Your task to perform on an android device: change the upload size in google photos Image 0: 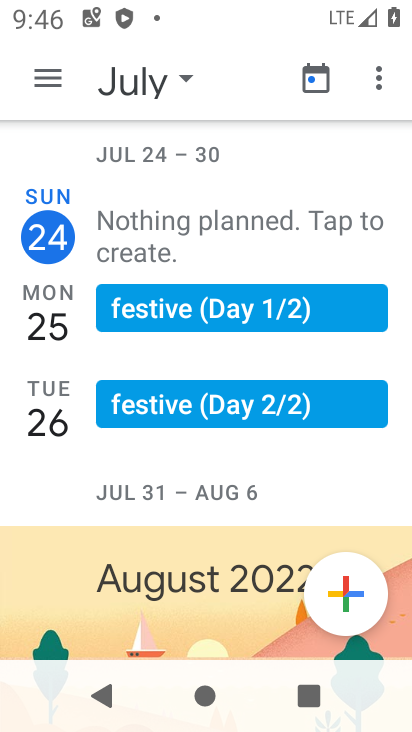
Step 0: press home button
Your task to perform on an android device: change the upload size in google photos Image 1: 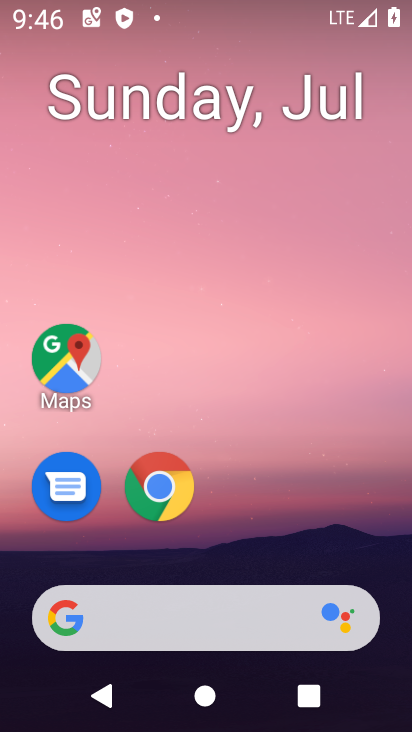
Step 1: drag from (314, 525) to (311, 61)
Your task to perform on an android device: change the upload size in google photos Image 2: 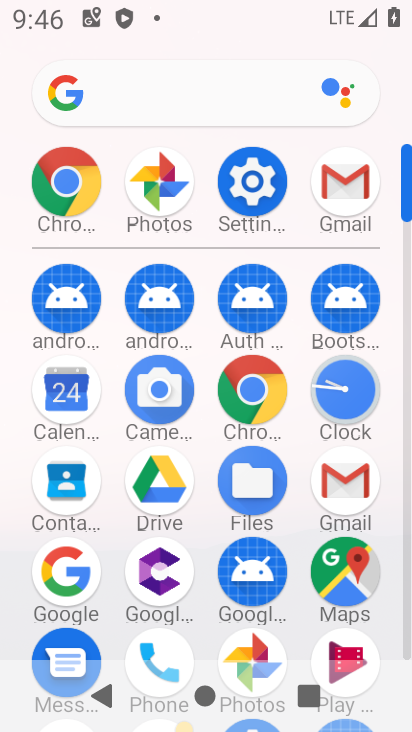
Step 2: click (154, 190)
Your task to perform on an android device: change the upload size in google photos Image 3: 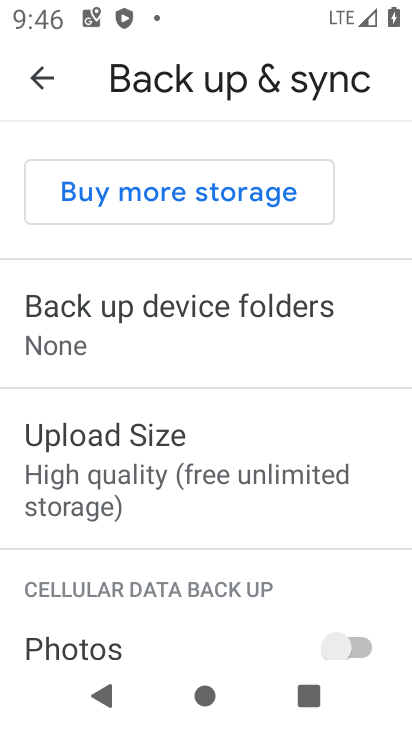
Step 3: drag from (264, 489) to (291, 352)
Your task to perform on an android device: change the upload size in google photos Image 4: 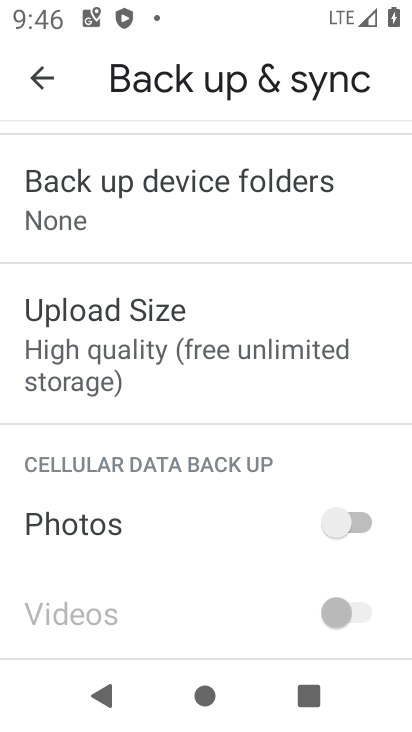
Step 4: click (216, 348)
Your task to perform on an android device: change the upload size in google photos Image 5: 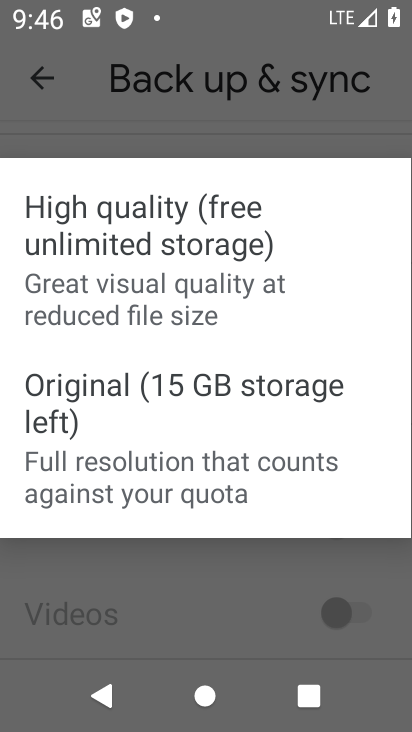
Step 5: click (204, 433)
Your task to perform on an android device: change the upload size in google photos Image 6: 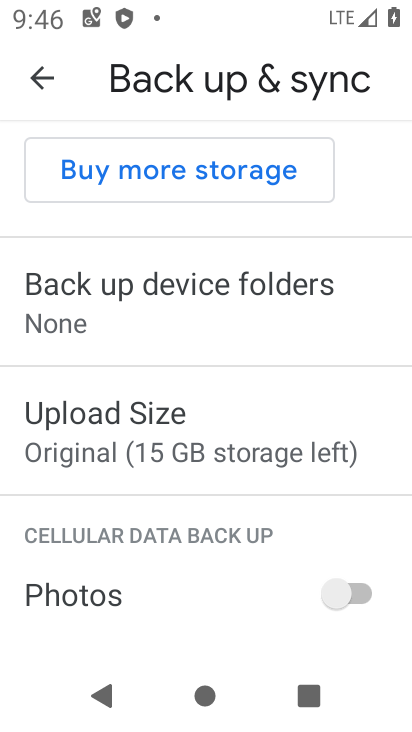
Step 6: task complete